Your task to perform on an android device: What's on my calendar tomorrow? Image 0: 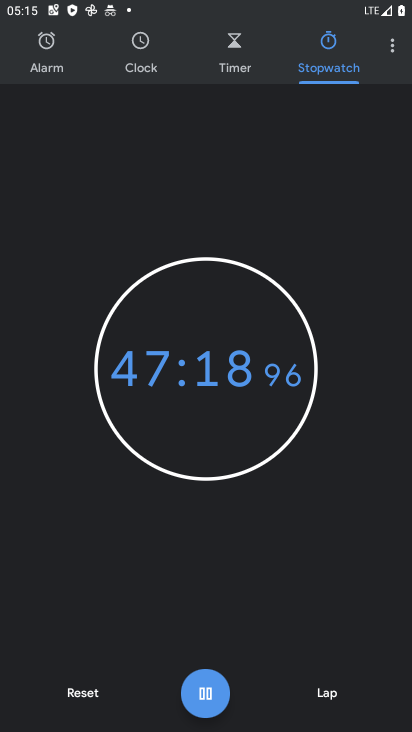
Step 0: press home button
Your task to perform on an android device: What's on my calendar tomorrow? Image 1: 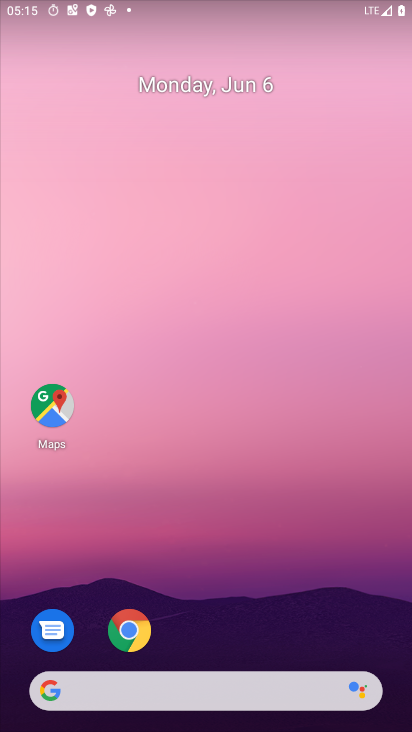
Step 1: drag from (240, 640) to (277, 55)
Your task to perform on an android device: What's on my calendar tomorrow? Image 2: 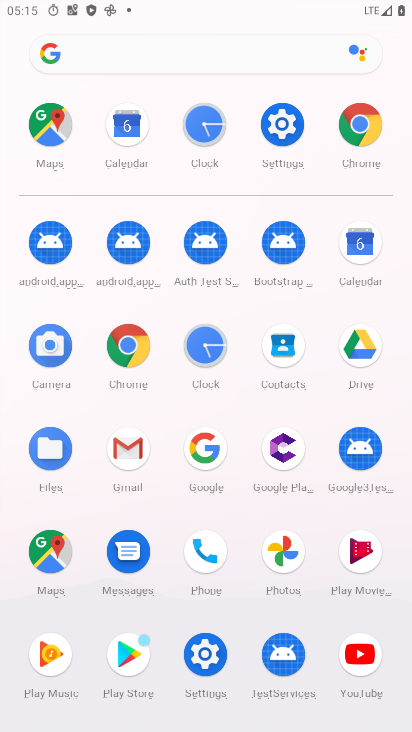
Step 2: click (363, 228)
Your task to perform on an android device: What's on my calendar tomorrow? Image 3: 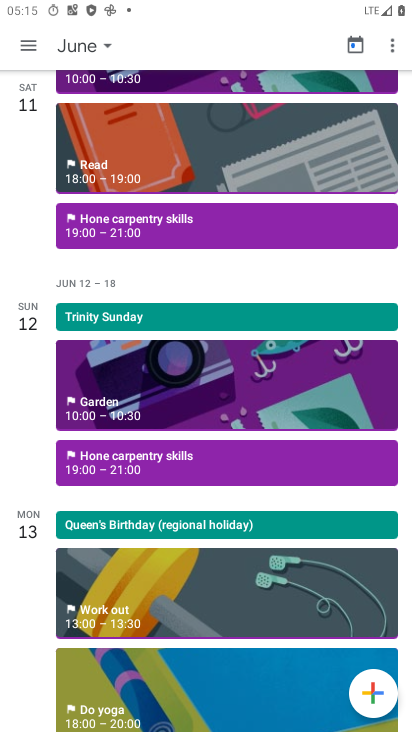
Step 3: click (86, 49)
Your task to perform on an android device: What's on my calendar tomorrow? Image 4: 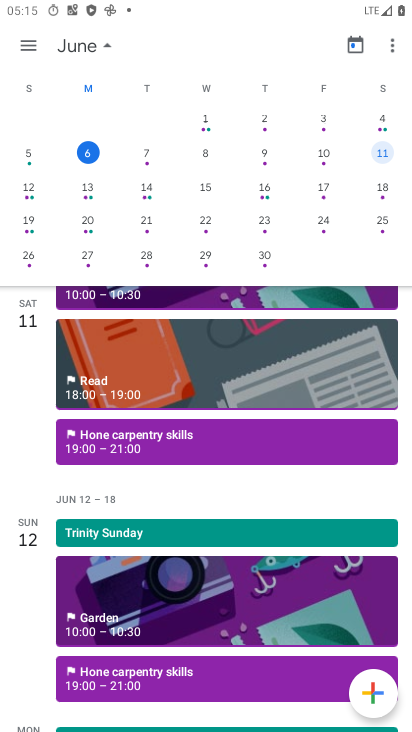
Step 4: click (150, 159)
Your task to perform on an android device: What's on my calendar tomorrow? Image 5: 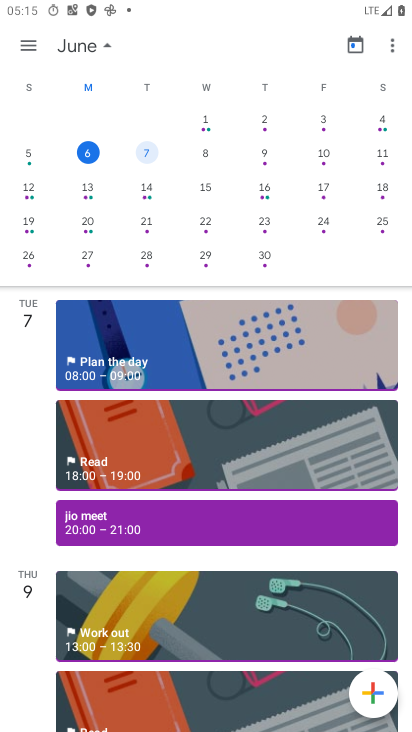
Step 5: task complete